Your task to perform on an android device: open a new tab in the chrome app Image 0: 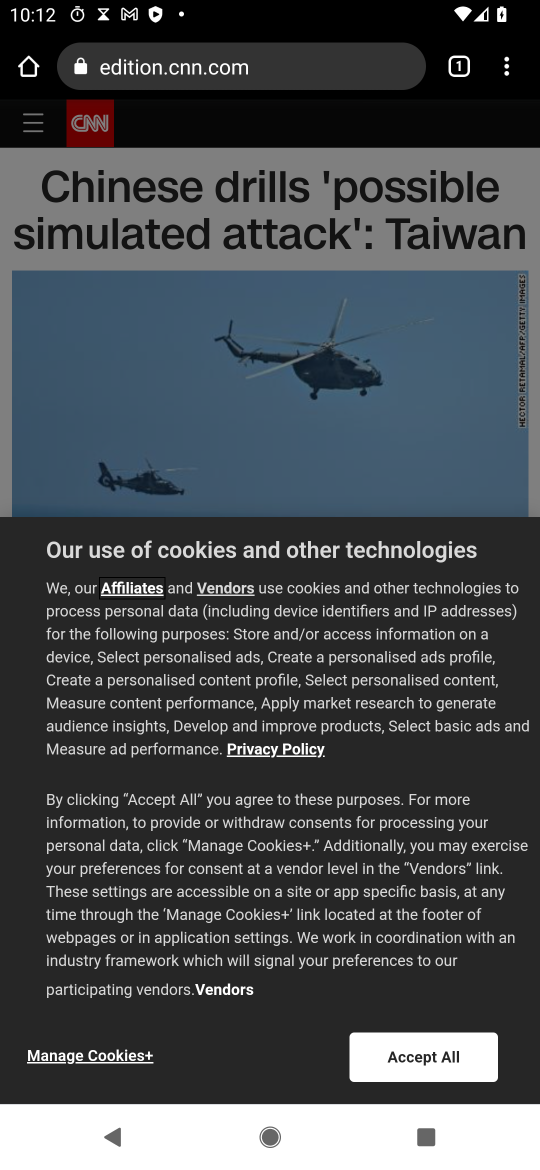
Step 0: press back button
Your task to perform on an android device: open a new tab in the chrome app Image 1: 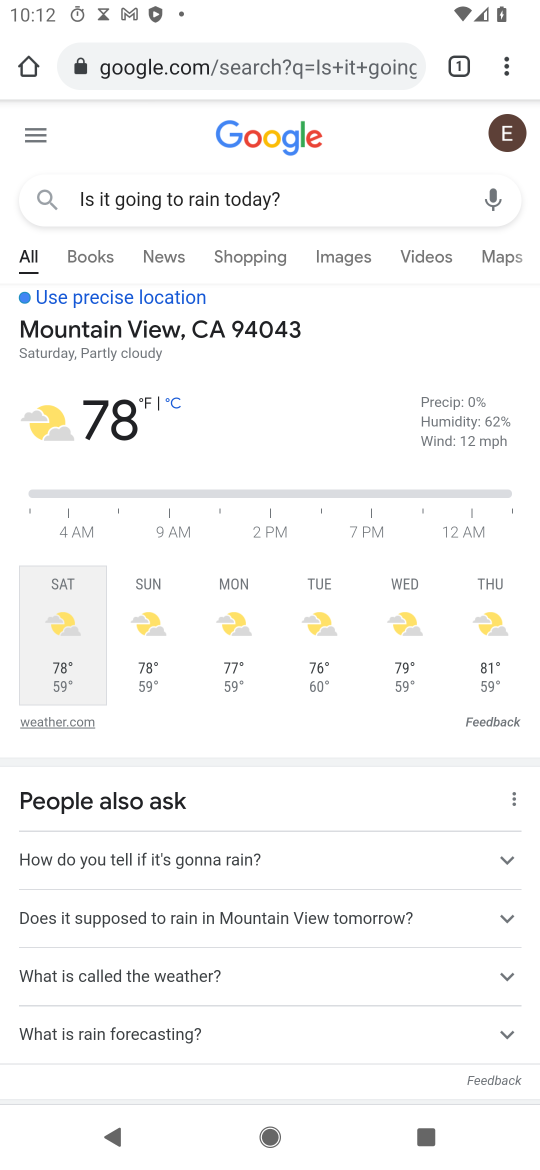
Step 1: click (511, 80)
Your task to perform on an android device: open a new tab in the chrome app Image 2: 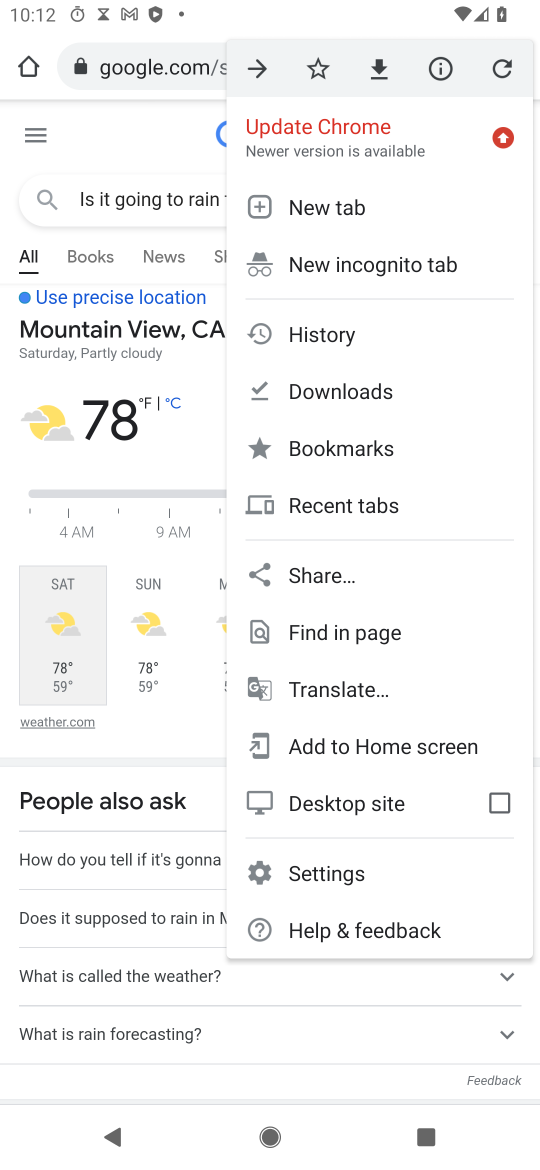
Step 2: click (315, 221)
Your task to perform on an android device: open a new tab in the chrome app Image 3: 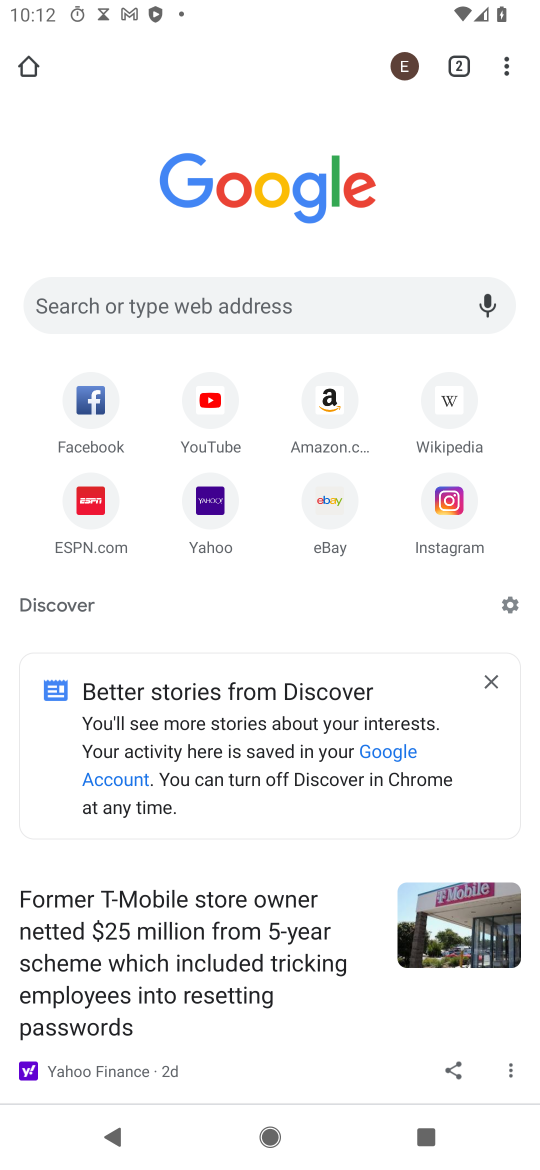
Step 3: task complete